Your task to perform on an android device: Open Google Chrome Image 0: 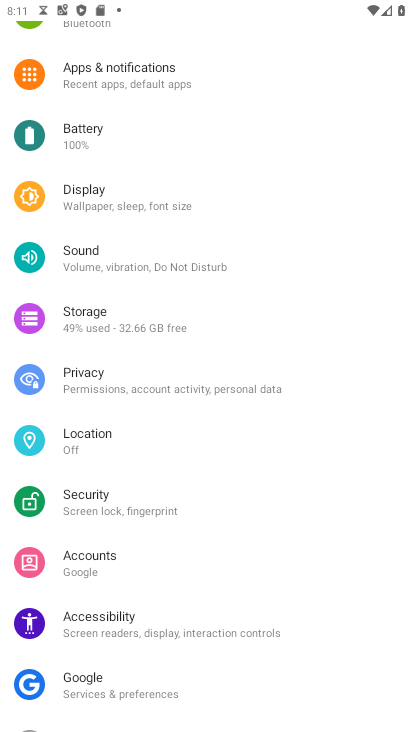
Step 0: press home button
Your task to perform on an android device: Open Google Chrome Image 1: 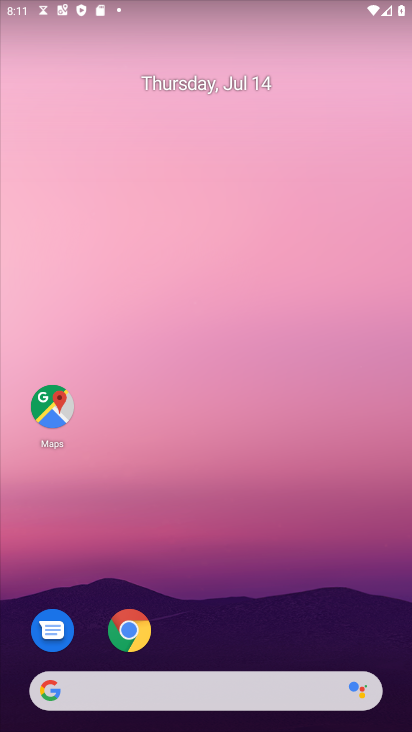
Step 1: click (138, 624)
Your task to perform on an android device: Open Google Chrome Image 2: 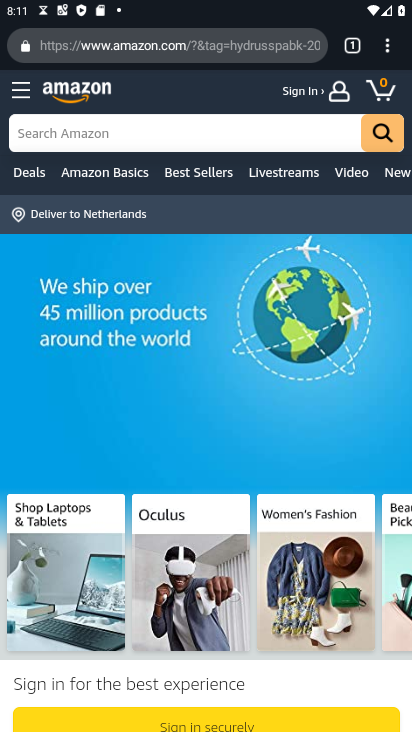
Step 2: task complete